Your task to perform on an android device: Check the weather Image 0: 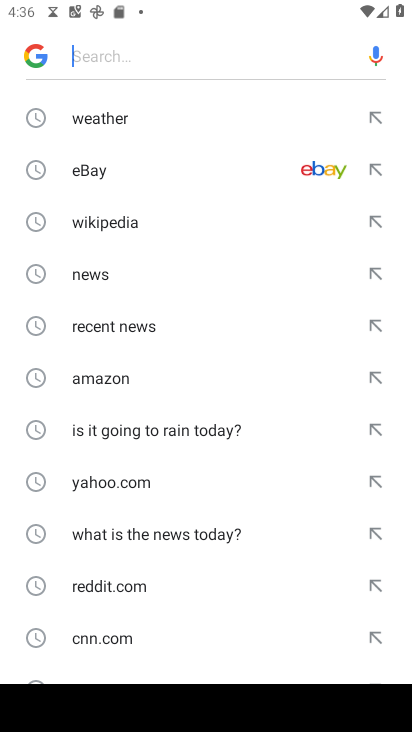
Step 0: press home button
Your task to perform on an android device: Check the weather Image 1: 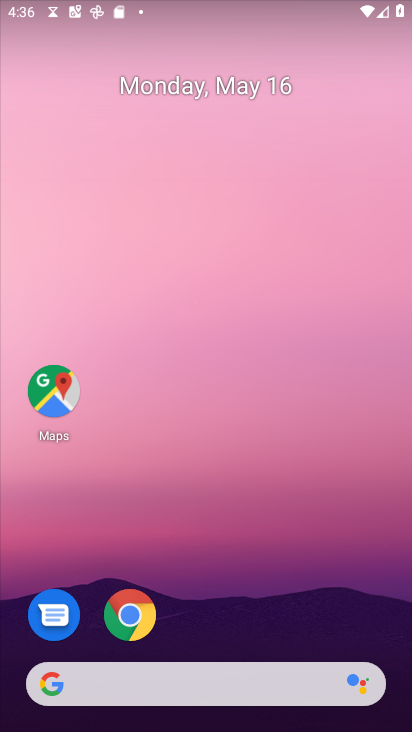
Step 1: click (286, 141)
Your task to perform on an android device: Check the weather Image 2: 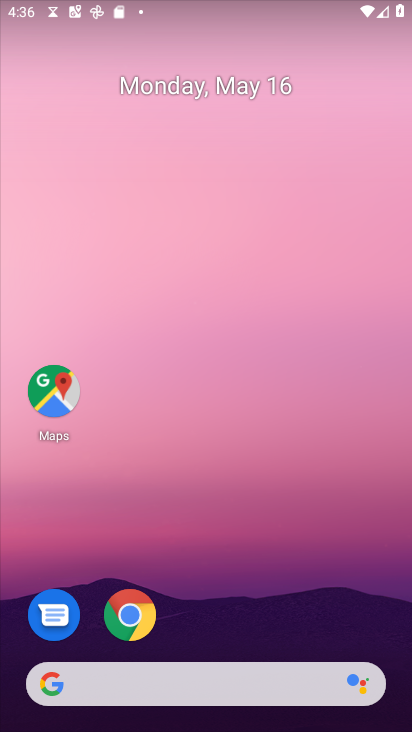
Step 2: click (195, 683)
Your task to perform on an android device: Check the weather Image 3: 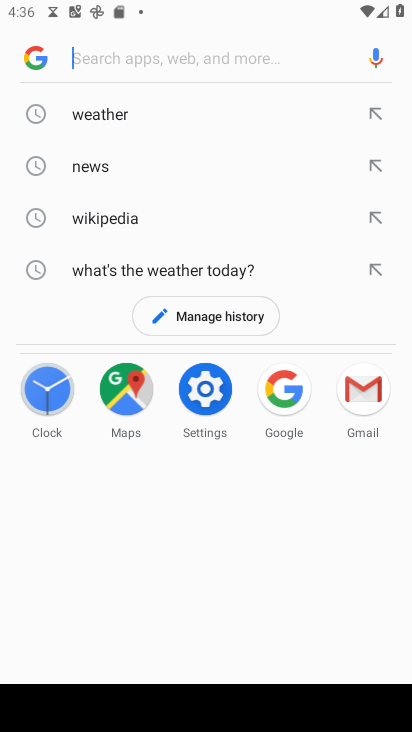
Step 3: click (88, 116)
Your task to perform on an android device: Check the weather Image 4: 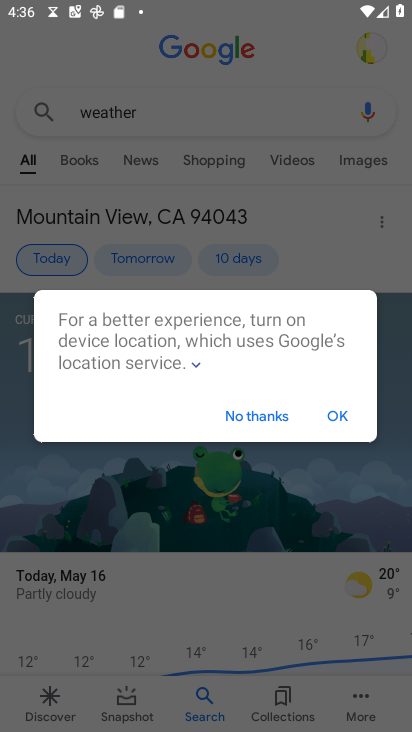
Step 4: click (286, 420)
Your task to perform on an android device: Check the weather Image 5: 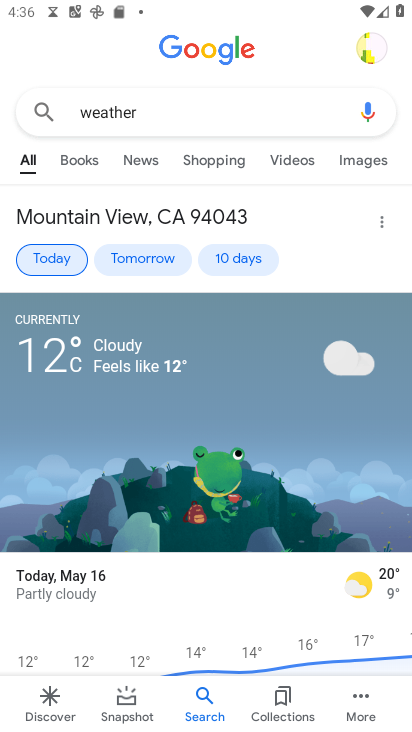
Step 5: task complete